Your task to perform on an android device: check data usage Image 0: 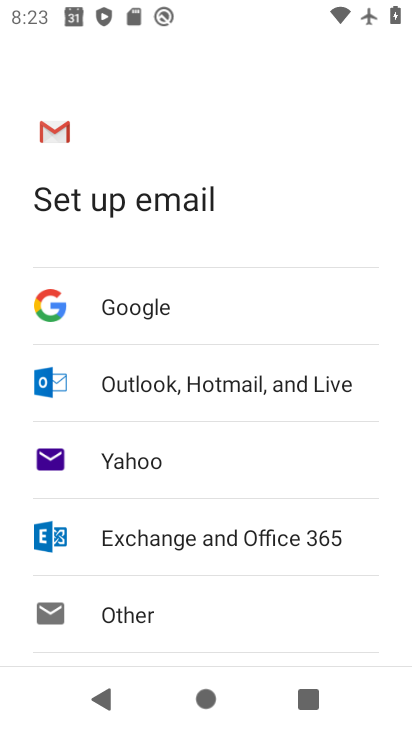
Step 0: press home button
Your task to perform on an android device: check data usage Image 1: 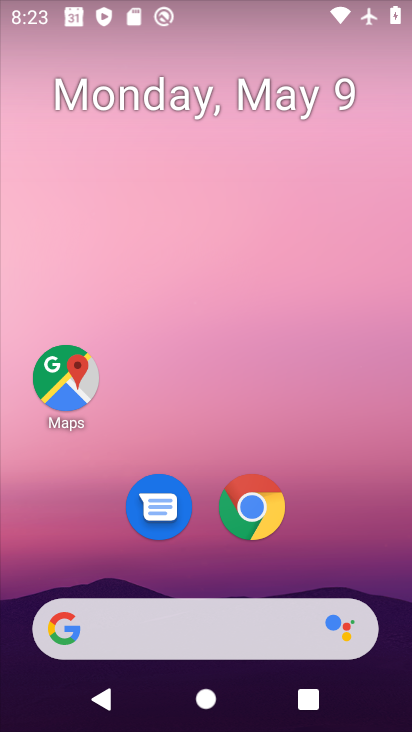
Step 1: drag from (206, 568) to (286, 0)
Your task to perform on an android device: check data usage Image 2: 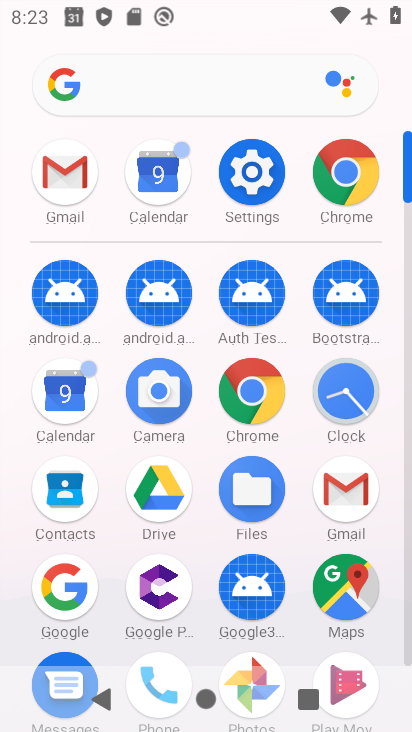
Step 2: click (250, 189)
Your task to perform on an android device: check data usage Image 3: 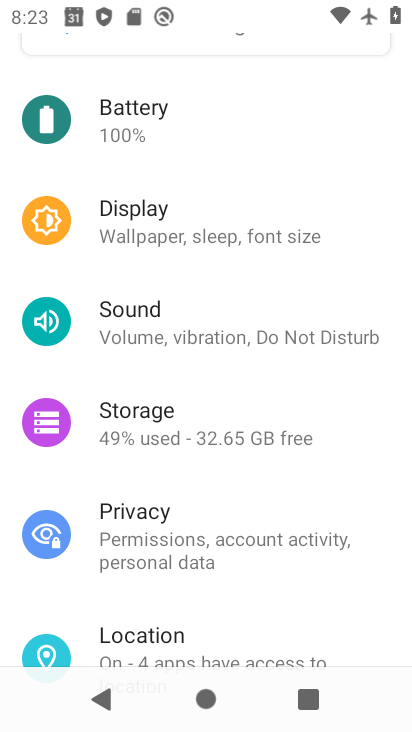
Step 3: drag from (250, 186) to (153, 708)
Your task to perform on an android device: check data usage Image 4: 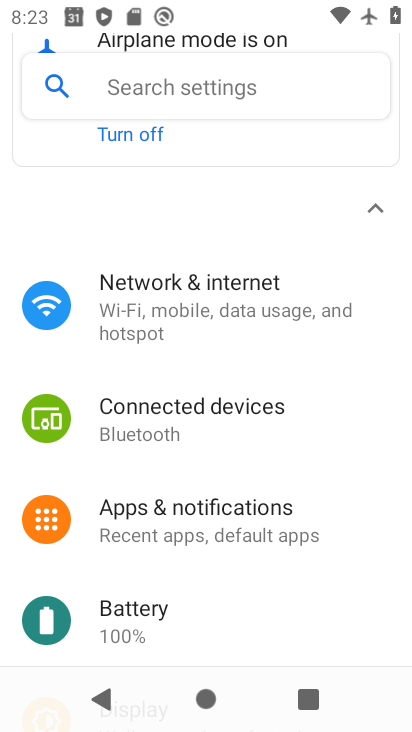
Step 4: click (158, 342)
Your task to perform on an android device: check data usage Image 5: 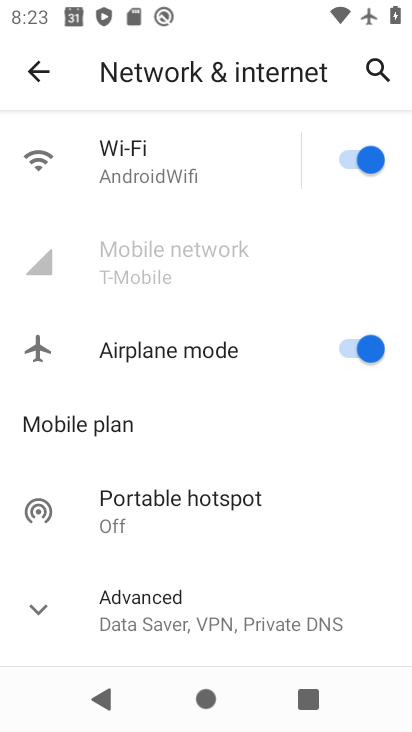
Step 5: task complete